Your task to perform on an android device: allow notifications from all sites in the chrome app Image 0: 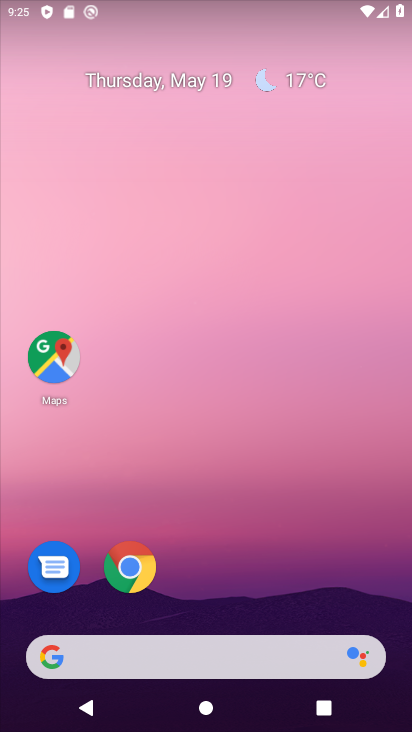
Step 0: drag from (306, 580) to (262, 263)
Your task to perform on an android device: allow notifications from all sites in the chrome app Image 1: 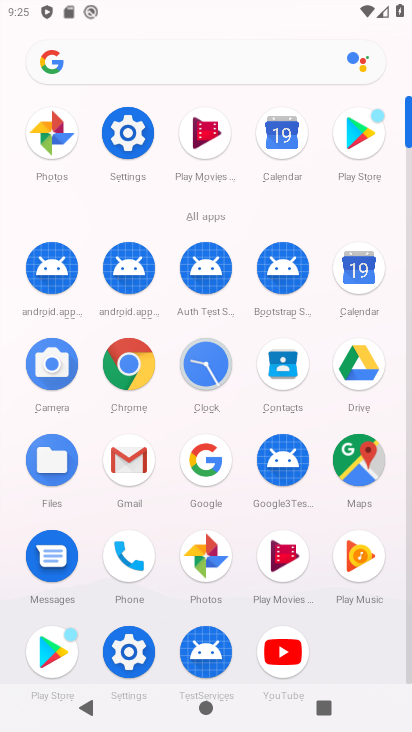
Step 1: click (131, 354)
Your task to perform on an android device: allow notifications from all sites in the chrome app Image 2: 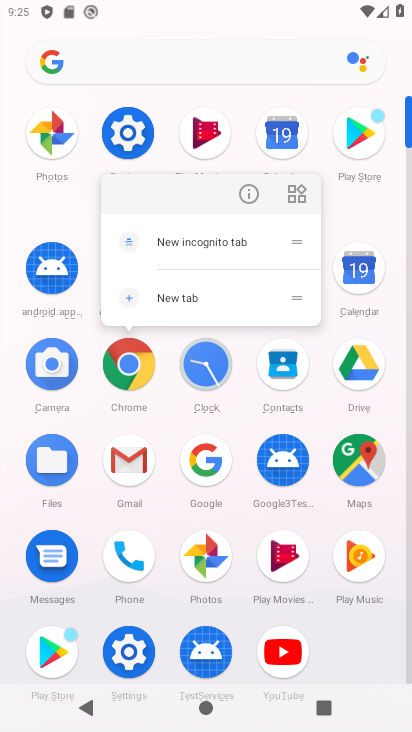
Step 2: click (246, 200)
Your task to perform on an android device: allow notifications from all sites in the chrome app Image 3: 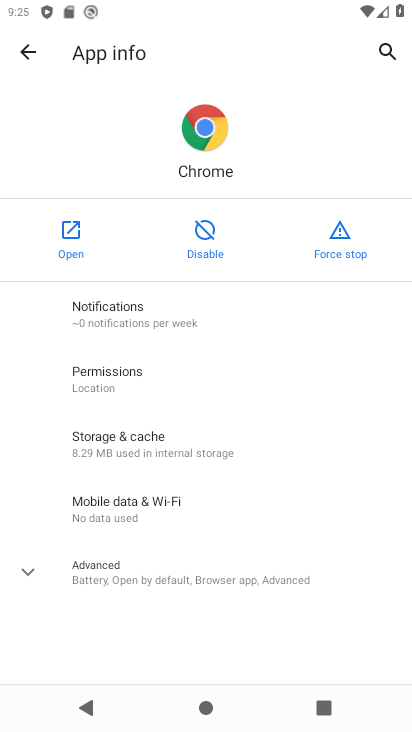
Step 3: click (145, 577)
Your task to perform on an android device: allow notifications from all sites in the chrome app Image 4: 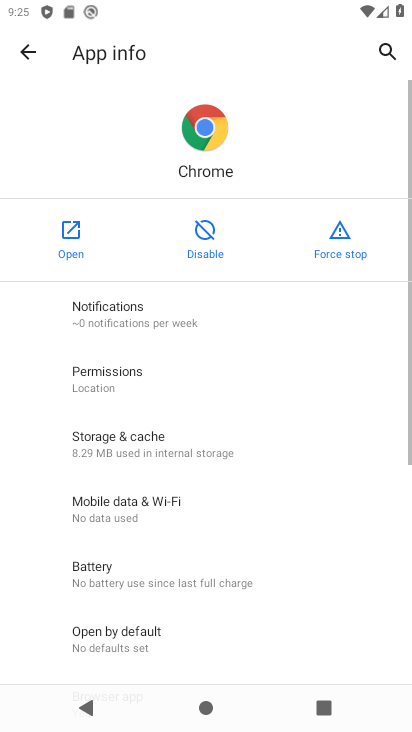
Step 4: drag from (241, 614) to (228, 506)
Your task to perform on an android device: allow notifications from all sites in the chrome app Image 5: 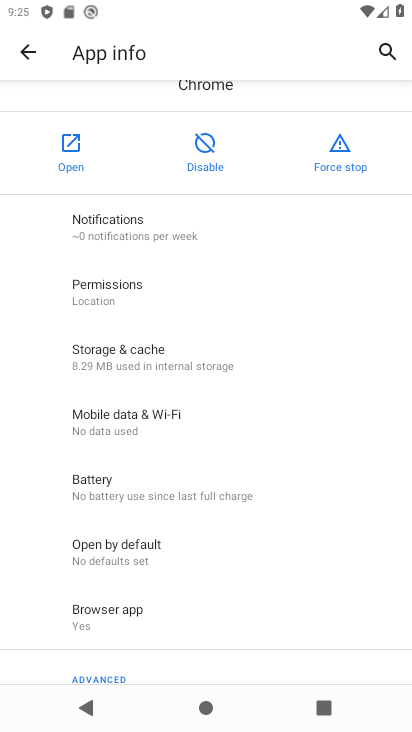
Step 5: click (175, 243)
Your task to perform on an android device: allow notifications from all sites in the chrome app Image 6: 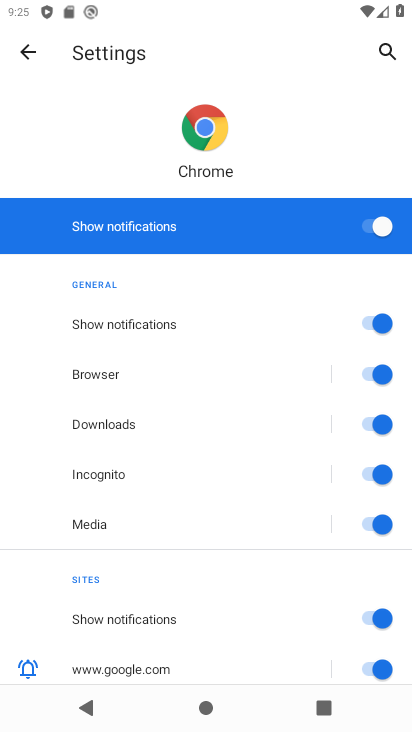
Step 6: task complete